Your task to perform on an android device: Go to Reddit.com Image 0: 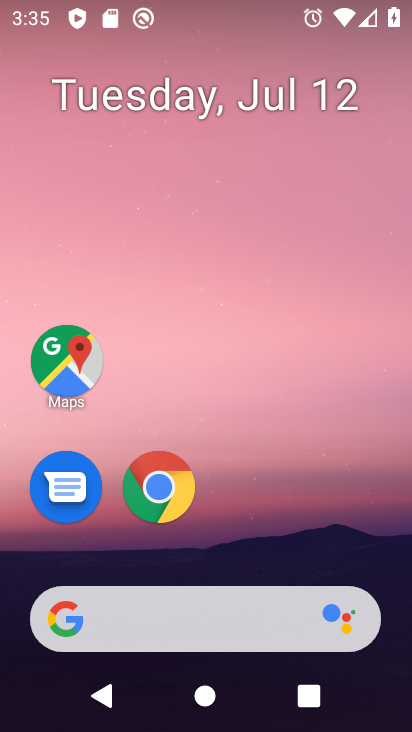
Step 0: drag from (140, 554) to (161, 66)
Your task to perform on an android device: Go to Reddit.com Image 1: 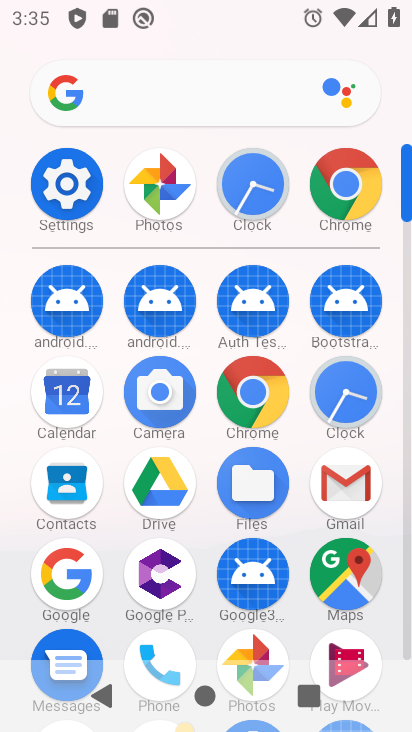
Step 1: click (70, 588)
Your task to perform on an android device: Go to Reddit.com Image 2: 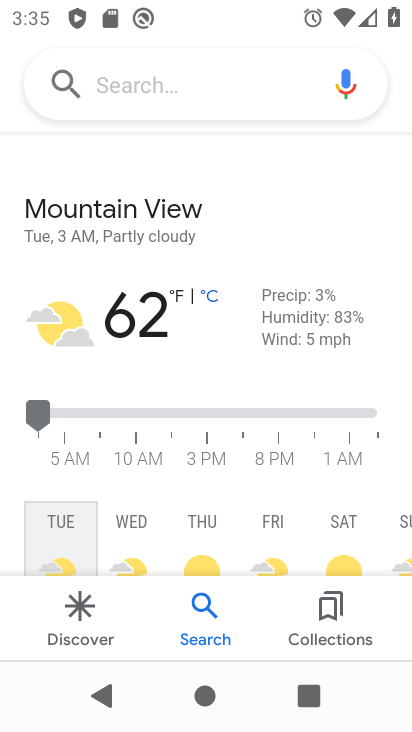
Step 2: click (166, 95)
Your task to perform on an android device: Go to Reddit.com Image 3: 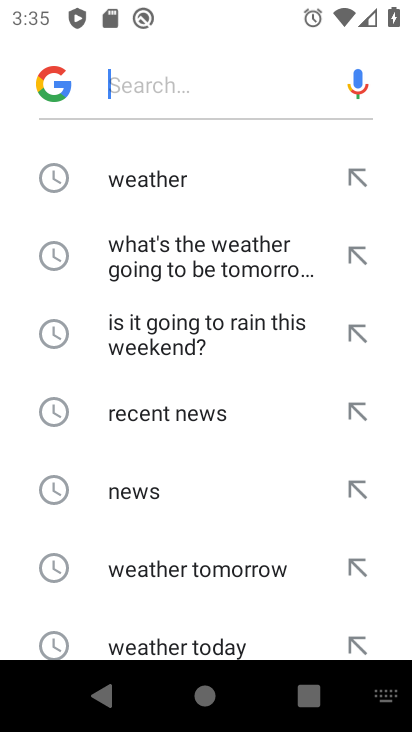
Step 3: drag from (194, 577) to (196, 202)
Your task to perform on an android device: Go to Reddit.com Image 4: 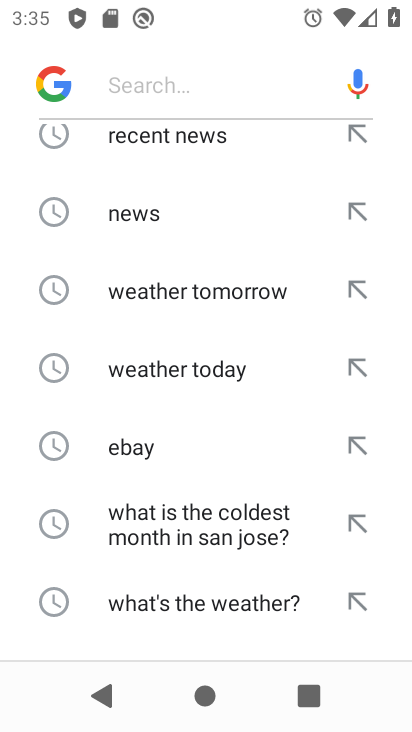
Step 4: drag from (184, 609) to (159, 231)
Your task to perform on an android device: Go to Reddit.com Image 5: 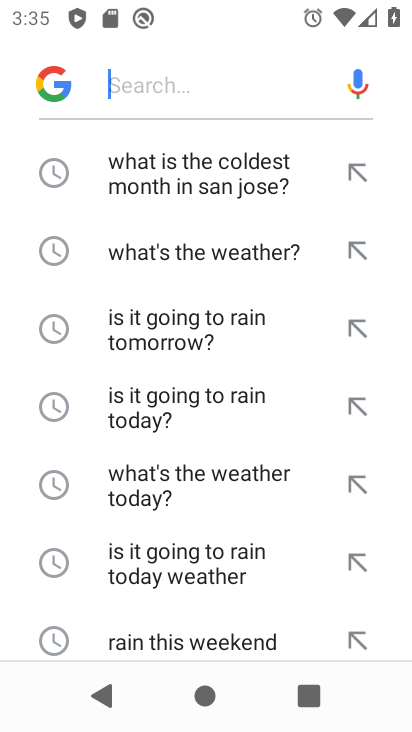
Step 5: drag from (214, 569) to (214, 125)
Your task to perform on an android device: Go to Reddit.com Image 6: 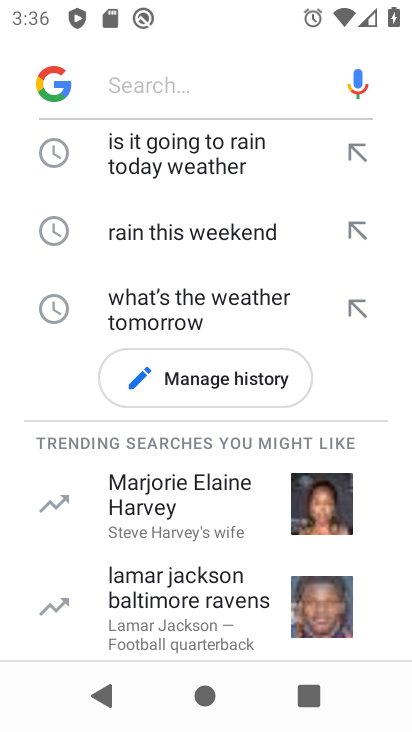
Step 6: type "reddit.com"
Your task to perform on an android device: Go to Reddit.com Image 7: 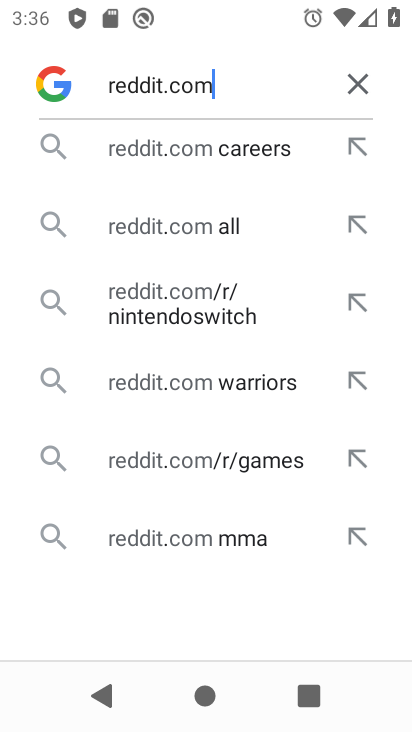
Step 7: click (160, 235)
Your task to perform on an android device: Go to Reddit.com Image 8: 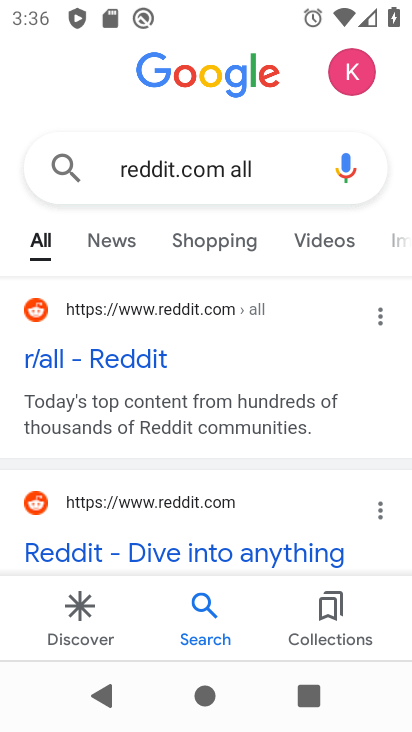
Step 8: click (136, 343)
Your task to perform on an android device: Go to Reddit.com Image 9: 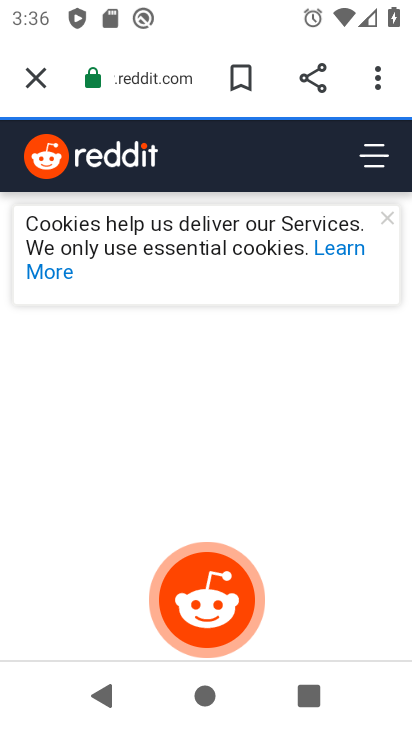
Step 9: task complete